Your task to perform on an android device: toggle data saver in the chrome app Image 0: 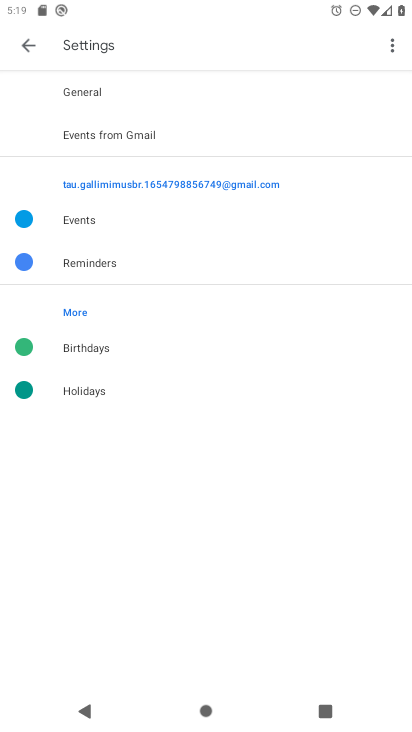
Step 0: press home button
Your task to perform on an android device: toggle data saver in the chrome app Image 1: 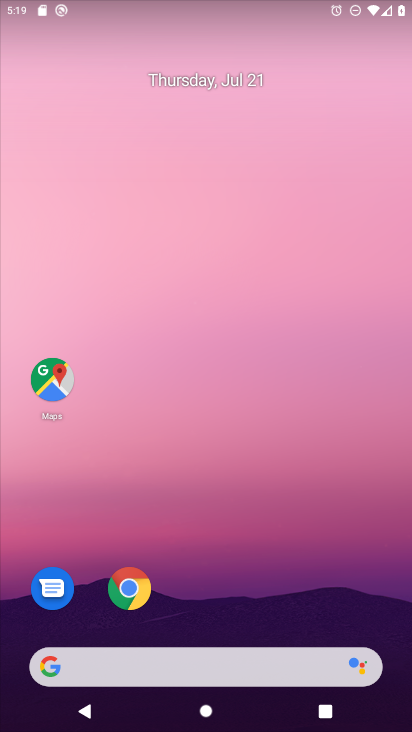
Step 1: click (133, 588)
Your task to perform on an android device: toggle data saver in the chrome app Image 2: 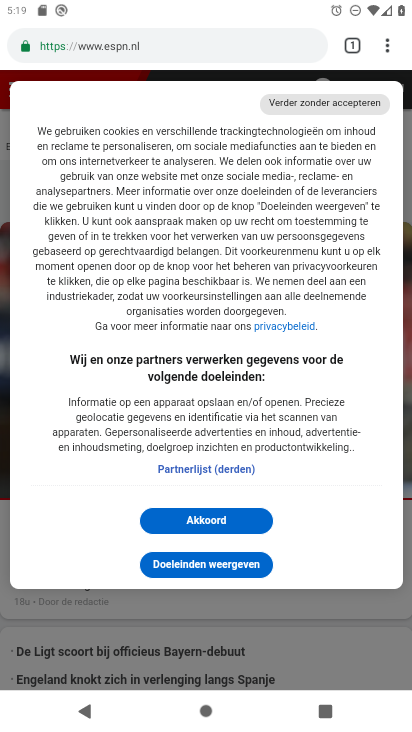
Step 2: click (381, 46)
Your task to perform on an android device: toggle data saver in the chrome app Image 3: 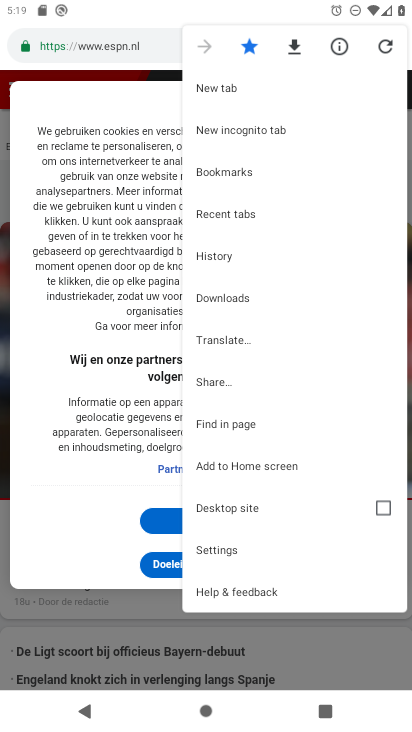
Step 3: click (246, 567)
Your task to perform on an android device: toggle data saver in the chrome app Image 4: 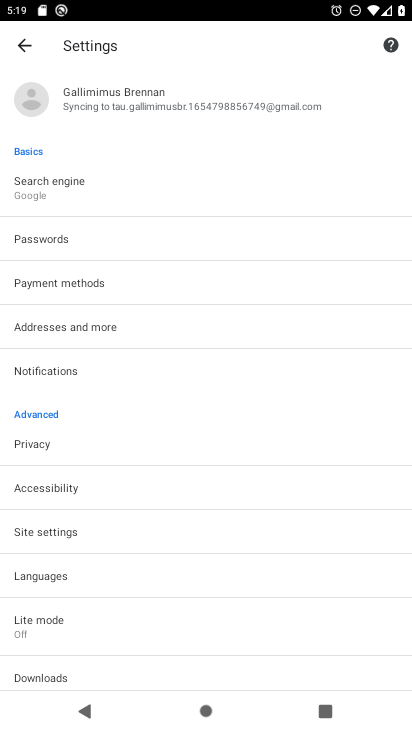
Step 4: click (114, 625)
Your task to perform on an android device: toggle data saver in the chrome app Image 5: 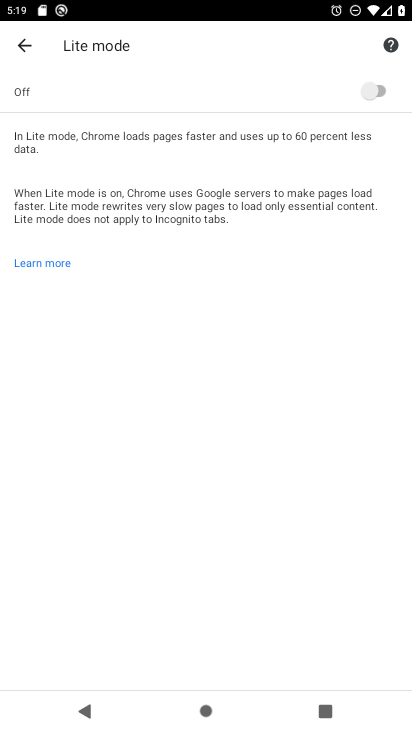
Step 5: click (376, 90)
Your task to perform on an android device: toggle data saver in the chrome app Image 6: 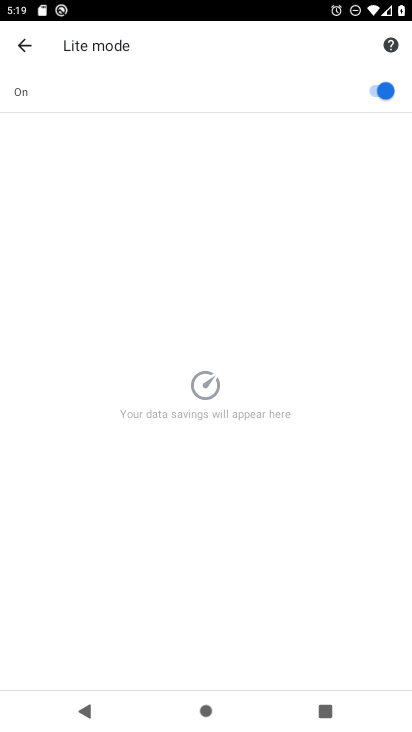
Step 6: task complete